Your task to perform on an android device: What's the weather? Image 0: 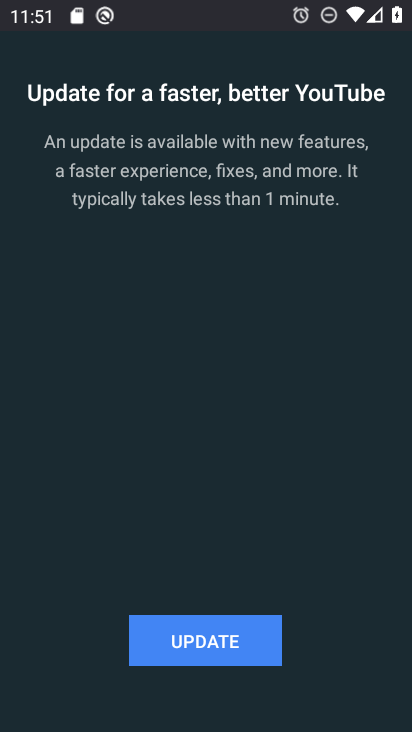
Step 0: press home button
Your task to perform on an android device: What's the weather? Image 1: 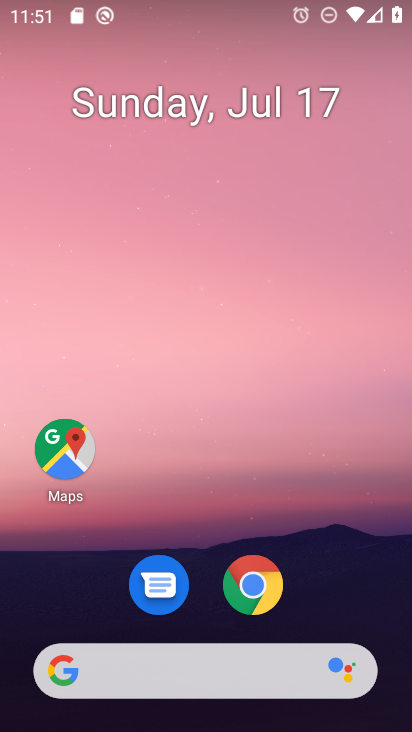
Step 1: click (235, 668)
Your task to perform on an android device: What's the weather? Image 2: 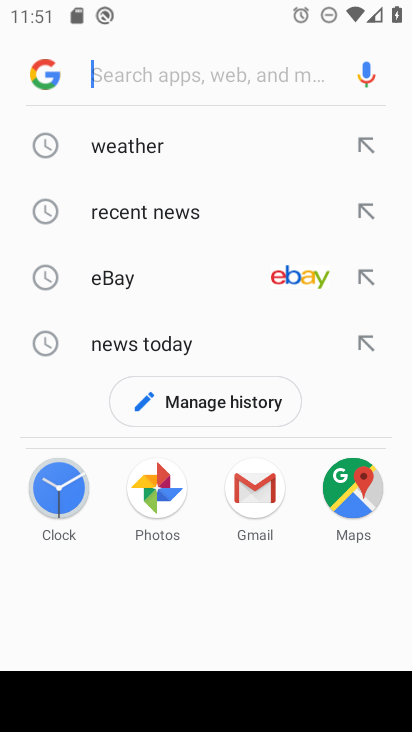
Step 2: click (149, 141)
Your task to perform on an android device: What's the weather? Image 3: 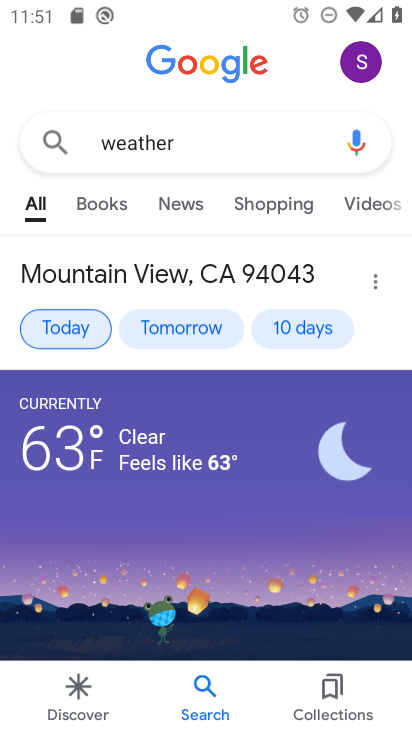
Step 3: click (85, 331)
Your task to perform on an android device: What's the weather? Image 4: 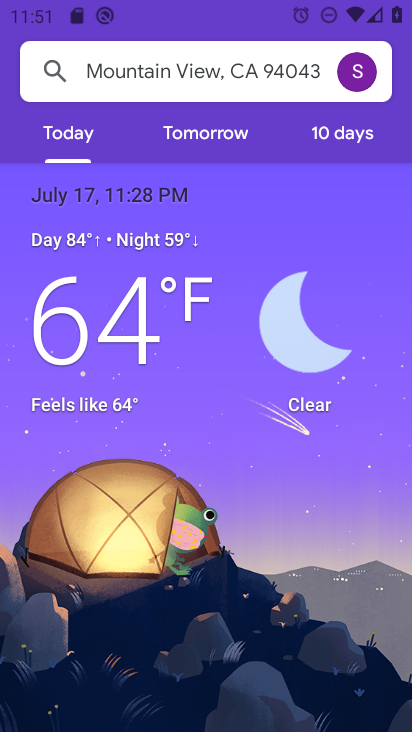
Step 4: task complete